Your task to perform on an android device: Go to CNN.com Image 0: 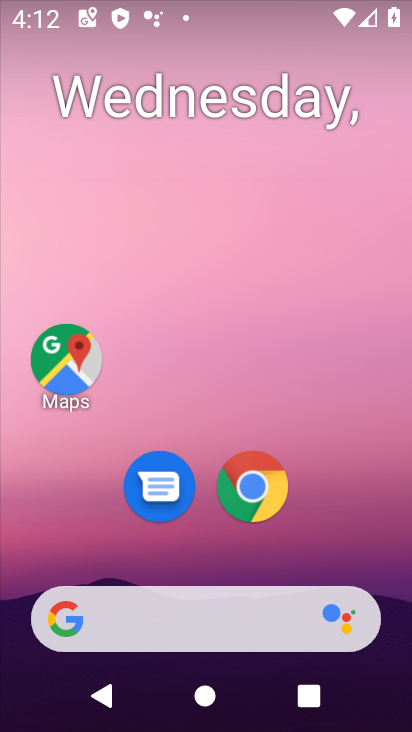
Step 0: drag from (204, 592) to (258, 80)
Your task to perform on an android device: Go to CNN.com Image 1: 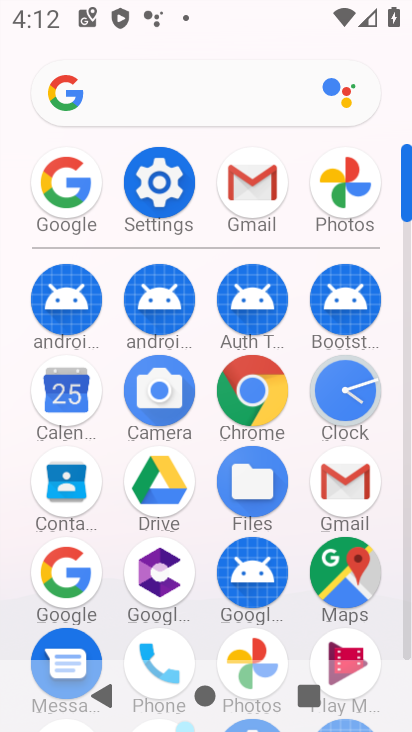
Step 1: click (67, 194)
Your task to perform on an android device: Go to CNN.com Image 2: 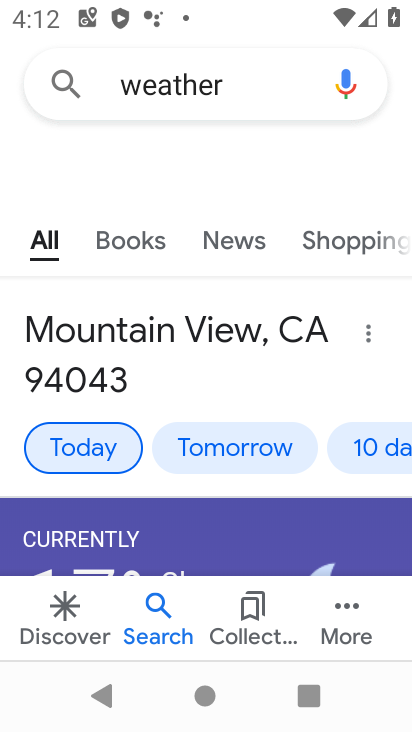
Step 2: click (247, 96)
Your task to perform on an android device: Go to CNN.com Image 3: 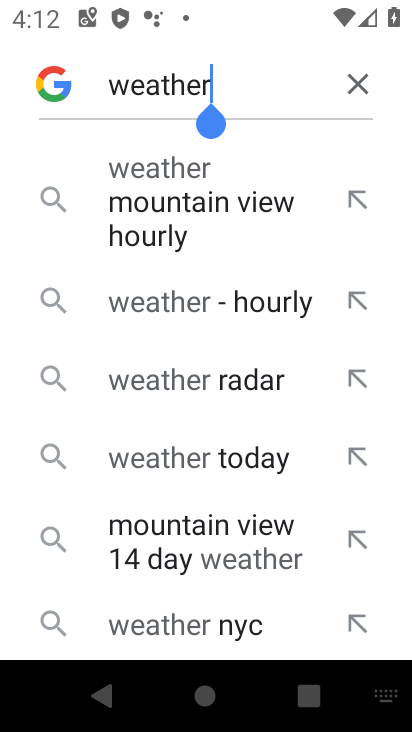
Step 3: click (351, 79)
Your task to perform on an android device: Go to CNN.com Image 4: 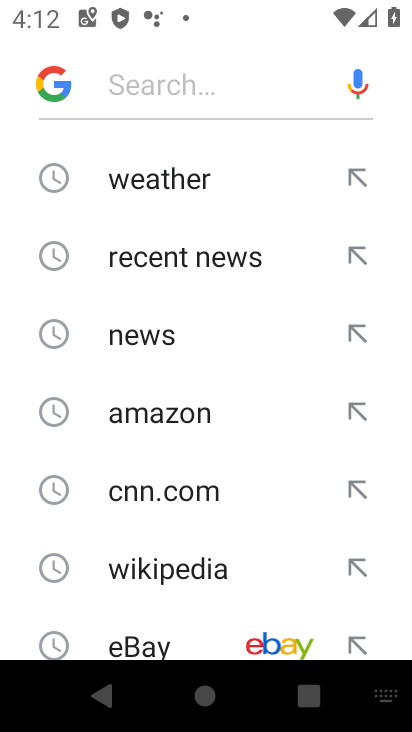
Step 4: click (175, 86)
Your task to perform on an android device: Go to CNN.com Image 5: 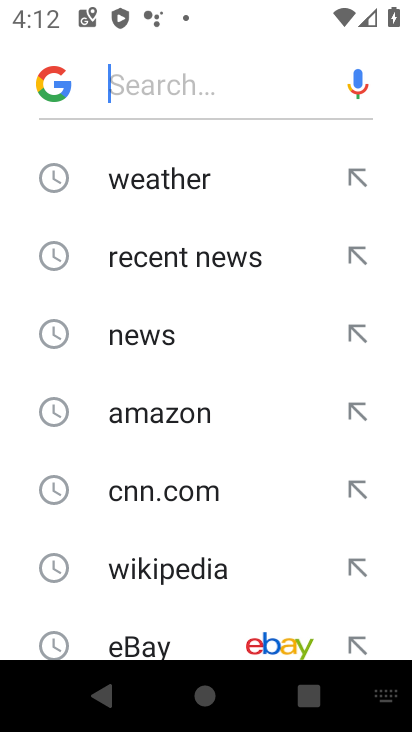
Step 5: drag from (171, 609) to (157, 358)
Your task to perform on an android device: Go to CNN.com Image 6: 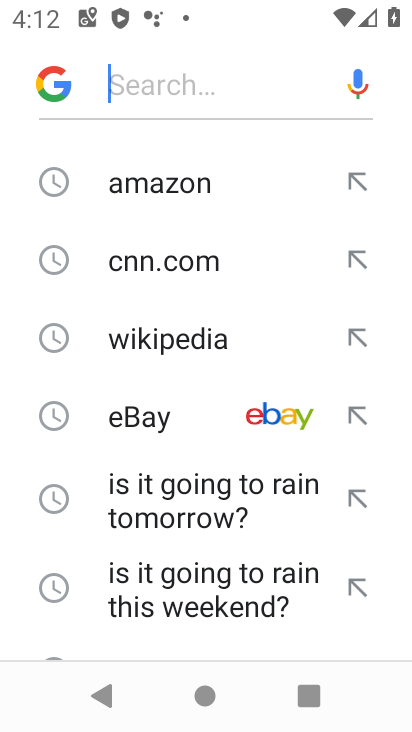
Step 6: click (168, 261)
Your task to perform on an android device: Go to CNN.com Image 7: 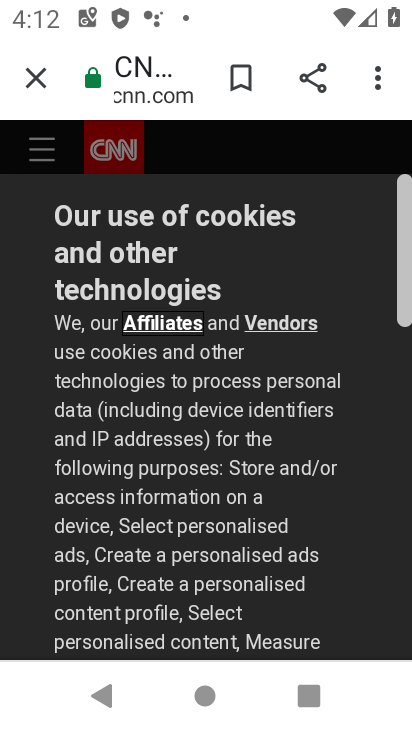
Step 7: task complete